Your task to perform on an android device: Open Wikipedia Image 0: 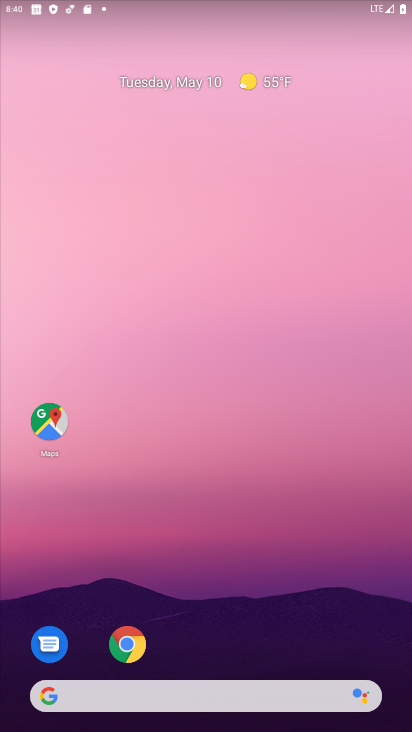
Step 0: drag from (258, 630) to (294, 53)
Your task to perform on an android device: Open Wikipedia Image 1: 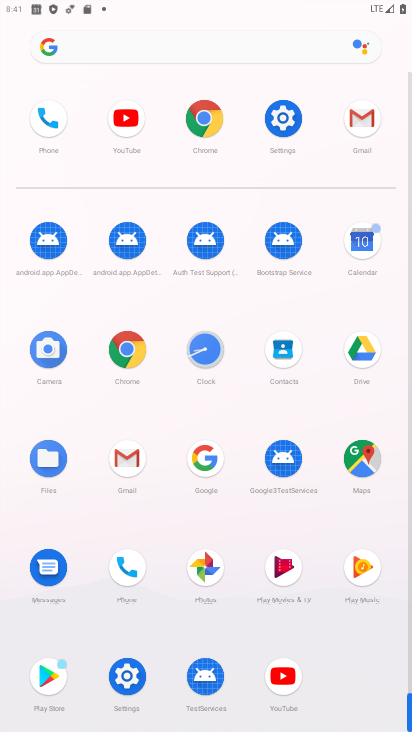
Step 1: click (208, 130)
Your task to perform on an android device: Open Wikipedia Image 2: 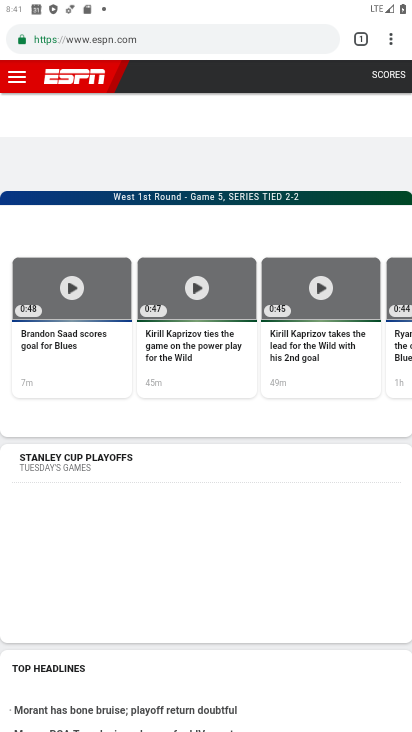
Step 2: click (227, 38)
Your task to perform on an android device: Open Wikipedia Image 3: 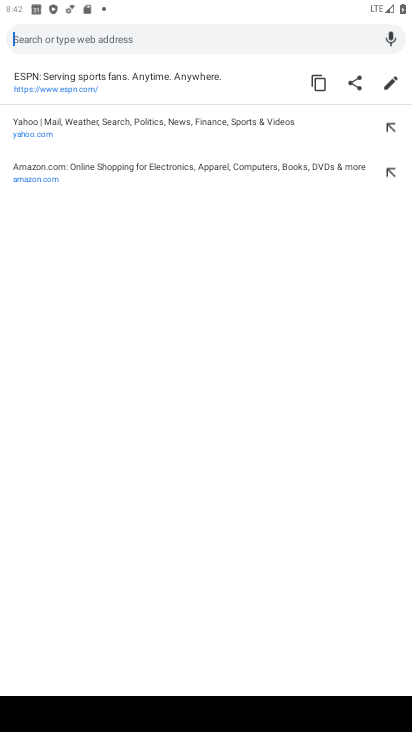
Step 3: type "wikipedia"
Your task to perform on an android device: Open Wikipedia Image 4: 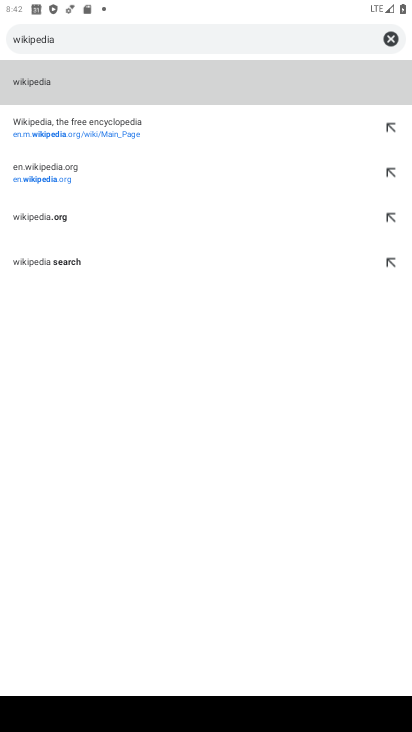
Step 4: click (123, 130)
Your task to perform on an android device: Open Wikipedia Image 5: 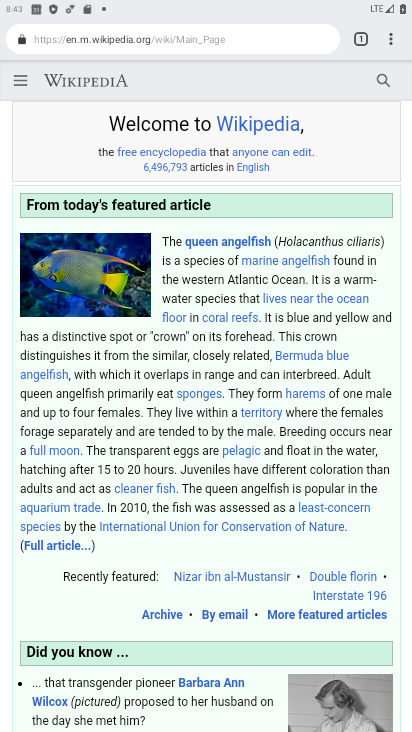
Step 5: task complete